Your task to perform on an android device: What is the news today? Image 0: 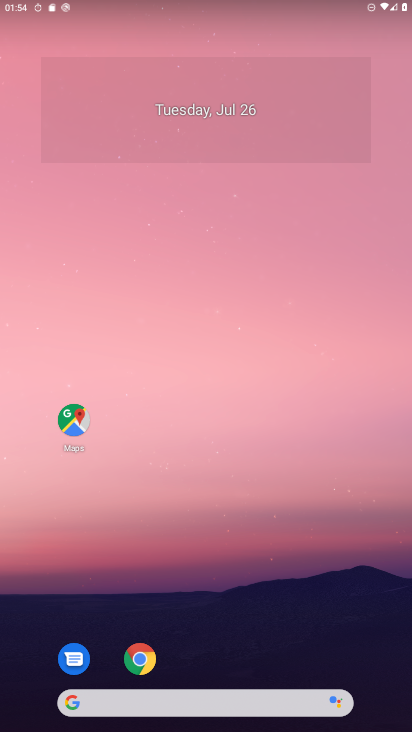
Step 0: click (118, 693)
Your task to perform on an android device: What is the news today? Image 1: 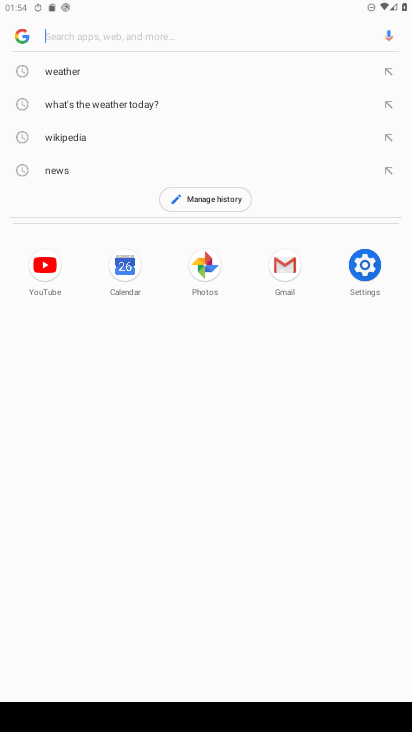
Step 1: type "What is the news today?"
Your task to perform on an android device: What is the news today? Image 2: 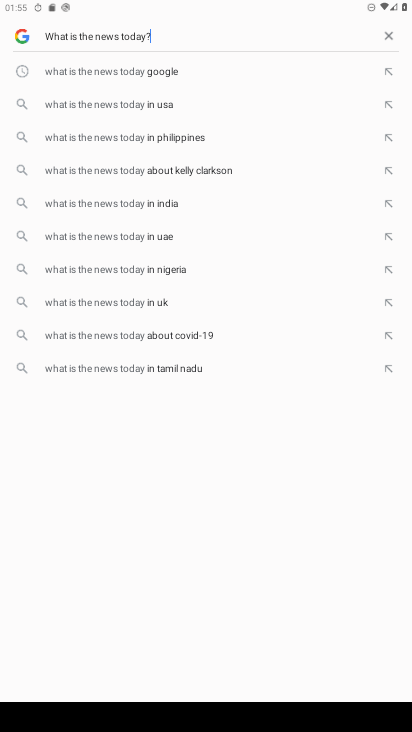
Step 2: task complete